Your task to perform on an android device: Open notification settings Image 0: 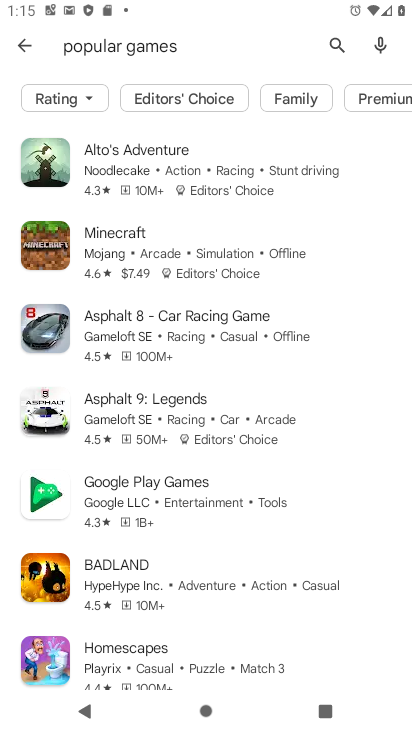
Step 0: press home button
Your task to perform on an android device: Open notification settings Image 1: 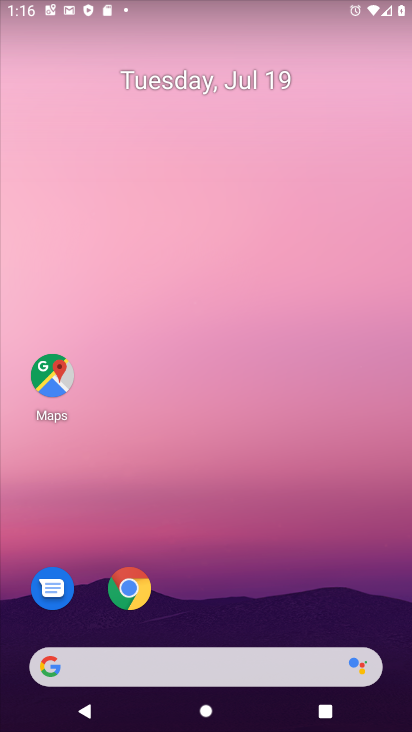
Step 1: drag from (382, 618) to (160, 4)
Your task to perform on an android device: Open notification settings Image 2: 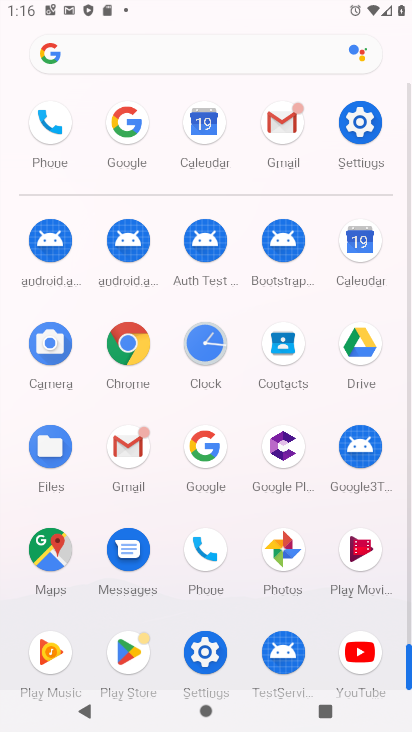
Step 2: click (357, 108)
Your task to perform on an android device: Open notification settings Image 3: 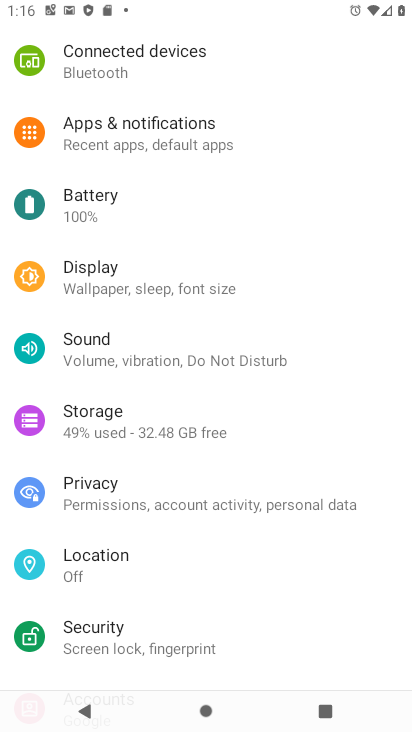
Step 3: click (177, 141)
Your task to perform on an android device: Open notification settings Image 4: 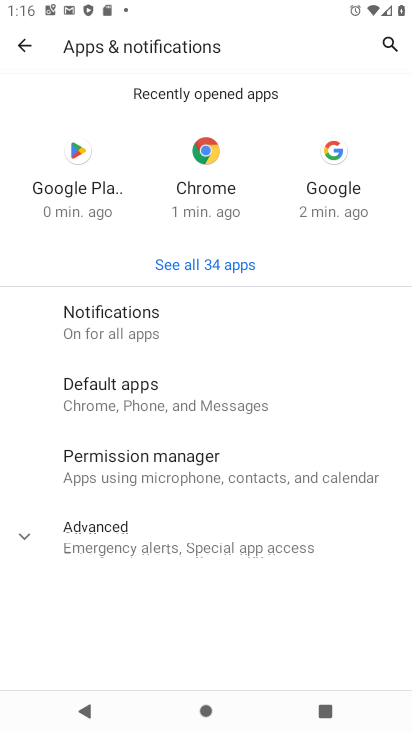
Step 4: click (97, 316)
Your task to perform on an android device: Open notification settings Image 5: 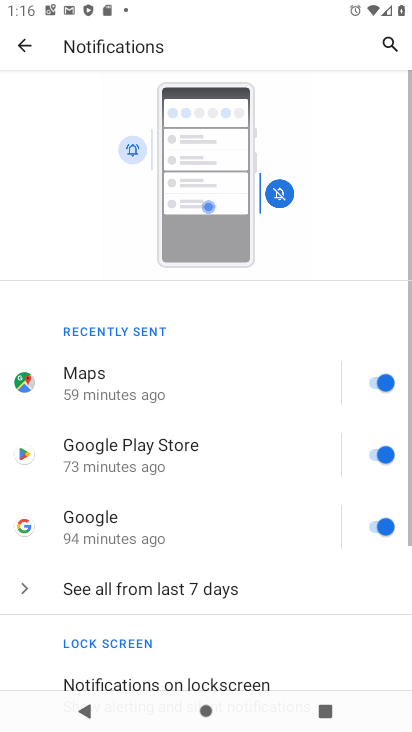
Step 5: task complete